Your task to perform on an android device: toggle javascript in the chrome app Image 0: 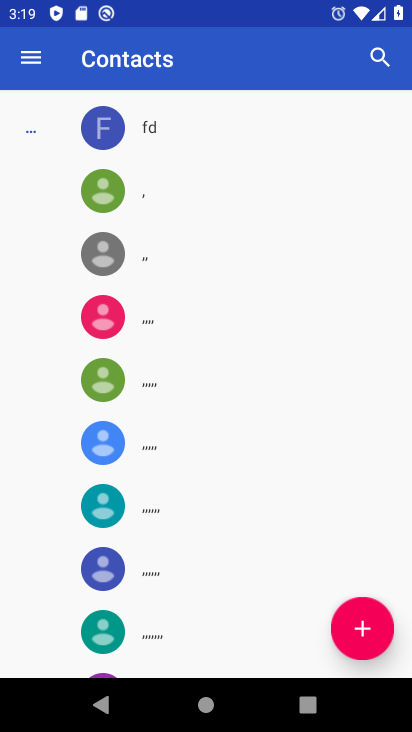
Step 0: press home button
Your task to perform on an android device: toggle javascript in the chrome app Image 1: 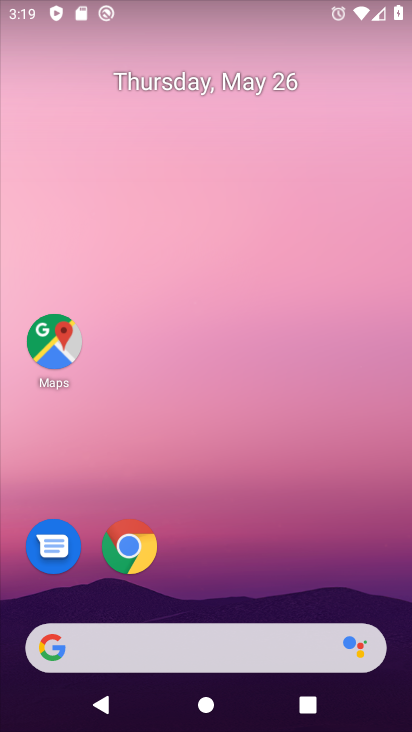
Step 1: click (119, 554)
Your task to perform on an android device: toggle javascript in the chrome app Image 2: 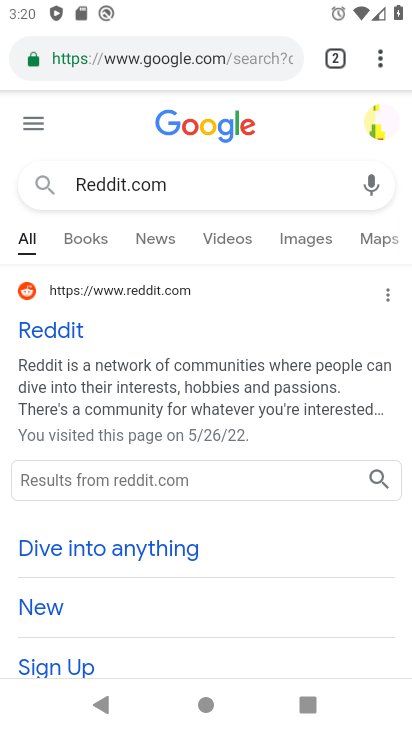
Step 2: click (292, 54)
Your task to perform on an android device: toggle javascript in the chrome app Image 3: 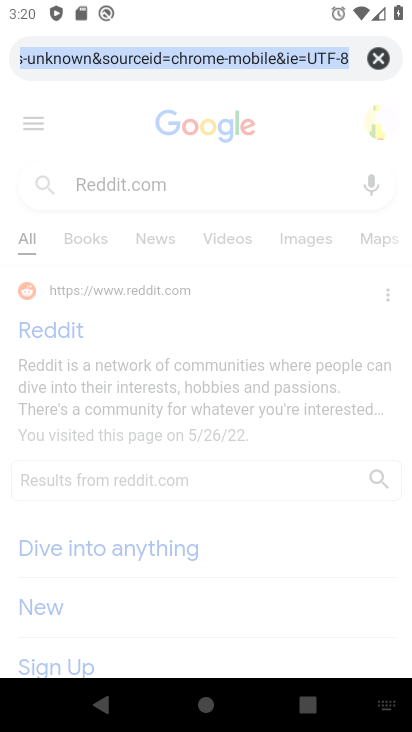
Step 3: click (368, 61)
Your task to perform on an android device: toggle javascript in the chrome app Image 4: 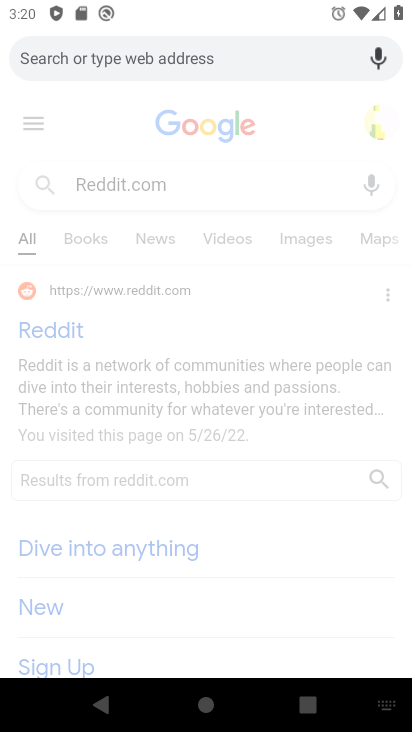
Step 4: press home button
Your task to perform on an android device: toggle javascript in the chrome app Image 5: 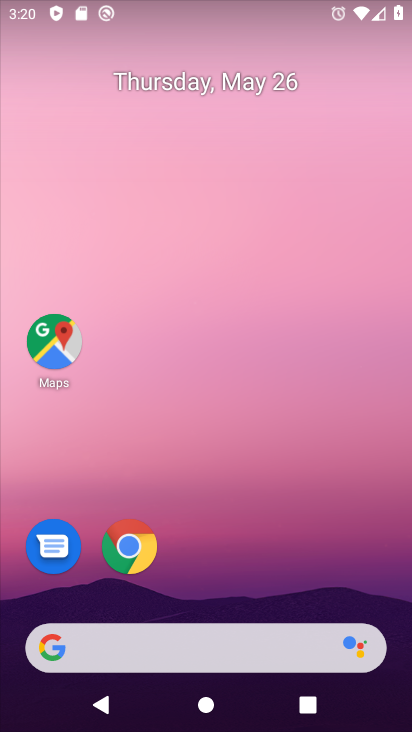
Step 5: click (136, 535)
Your task to perform on an android device: toggle javascript in the chrome app Image 6: 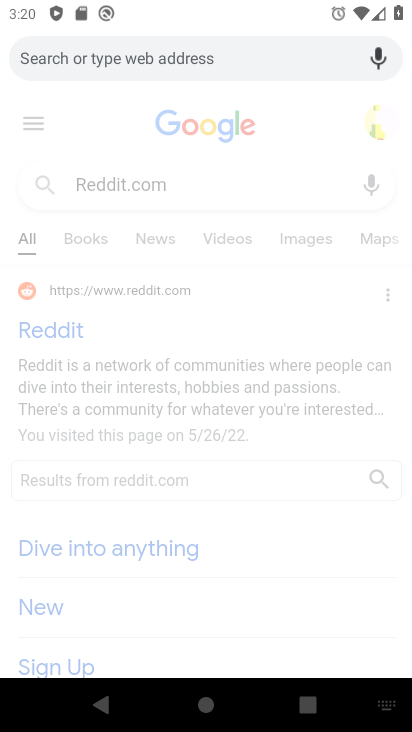
Step 6: press back button
Your task to perform on an android device: toggle javascript in the chrome app Image 7: 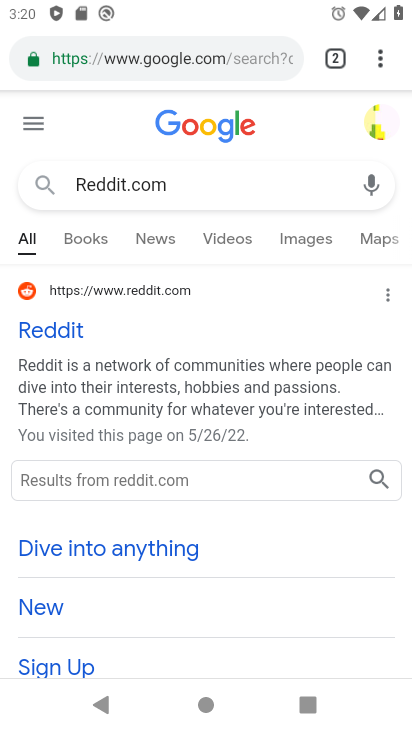
Step 7: click (379, 53)
Your task to perform on an android device: toggle javascript in the chrome app Image 8: 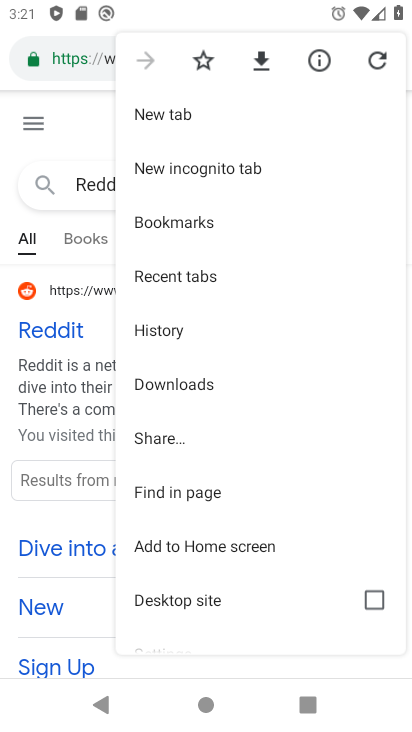
Step 8: drag from (295, 519) to (304, 260)
Your task to perform on an android device: toggle javascript in the chrome app Image 9: 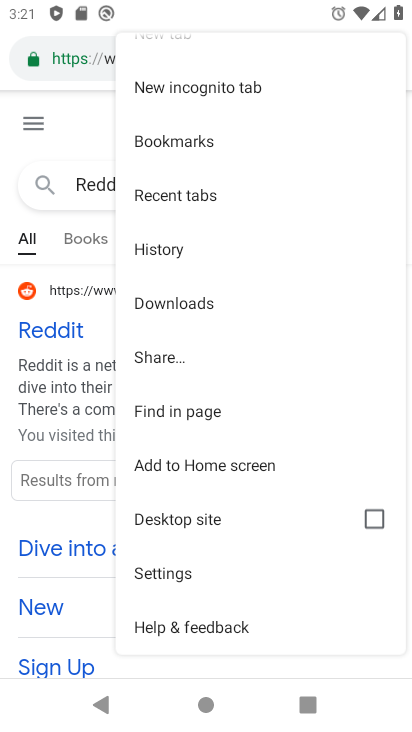
Step 9: click (163, 566)
Your task to perform on an android device: toggle javascript in the chrome app Image 10: 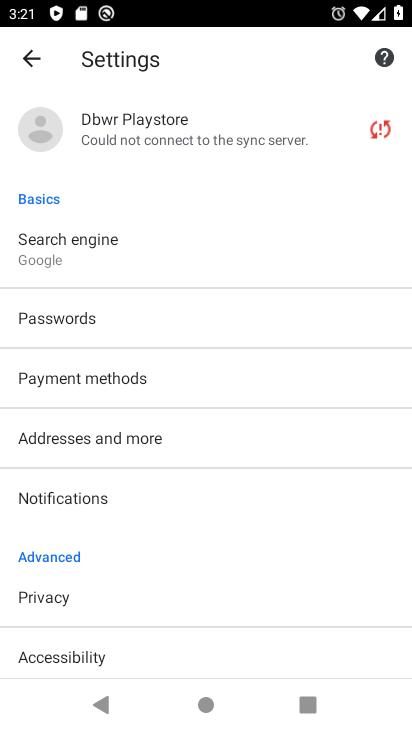
Step 10: drag from (229, 517) to (264, 285)
Your task to perform on an android device: toggle javascript in the chrome app Image 11: 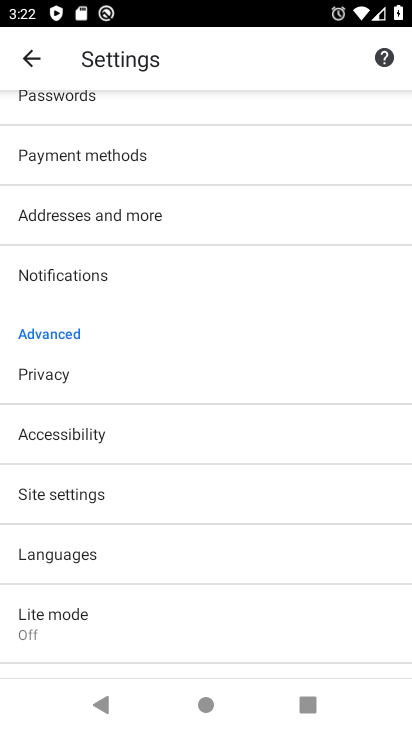
Step 11: click (51, 490)
Your task to perform on an android device: toggle javascript in the chrome app Image 12: 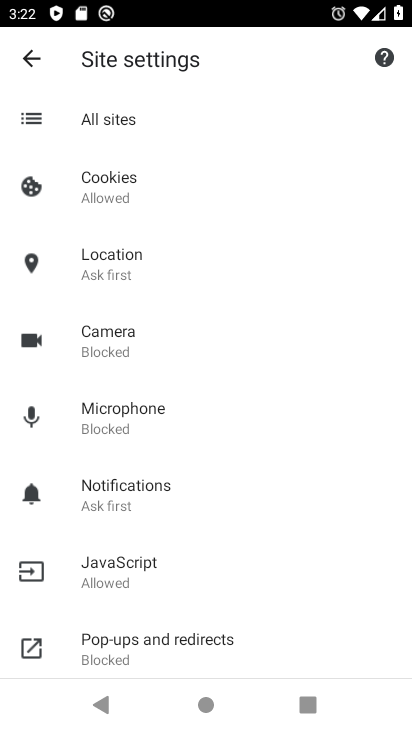
Step 12: drag from (250, 615) to (261, 307)
Your task to perform on an android device: toggle javascript in the chrome app Image 13: 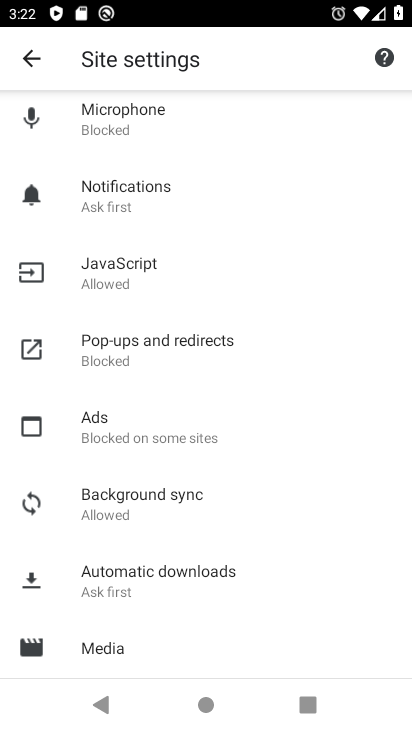
Step 13: click (106, 276)
Your task to perform on an android device: toggle javascript in the chrome app Image 14: 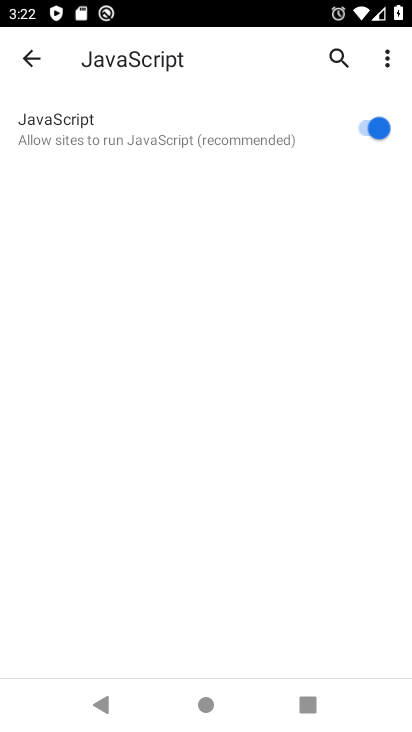
Step 14: click (358, 128)
Your task to perform on an android device: toggle javascript in the chrome app Image 15: 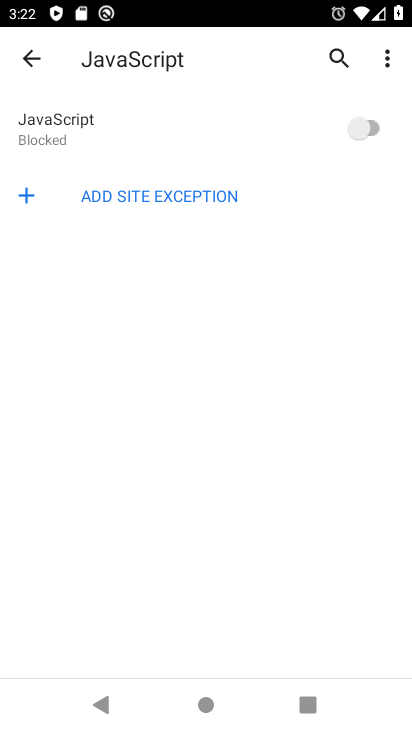
Step 15: task complete